Your task to perform on an android device: Add "macbook pro" to the cart on newegg.com Image 0: 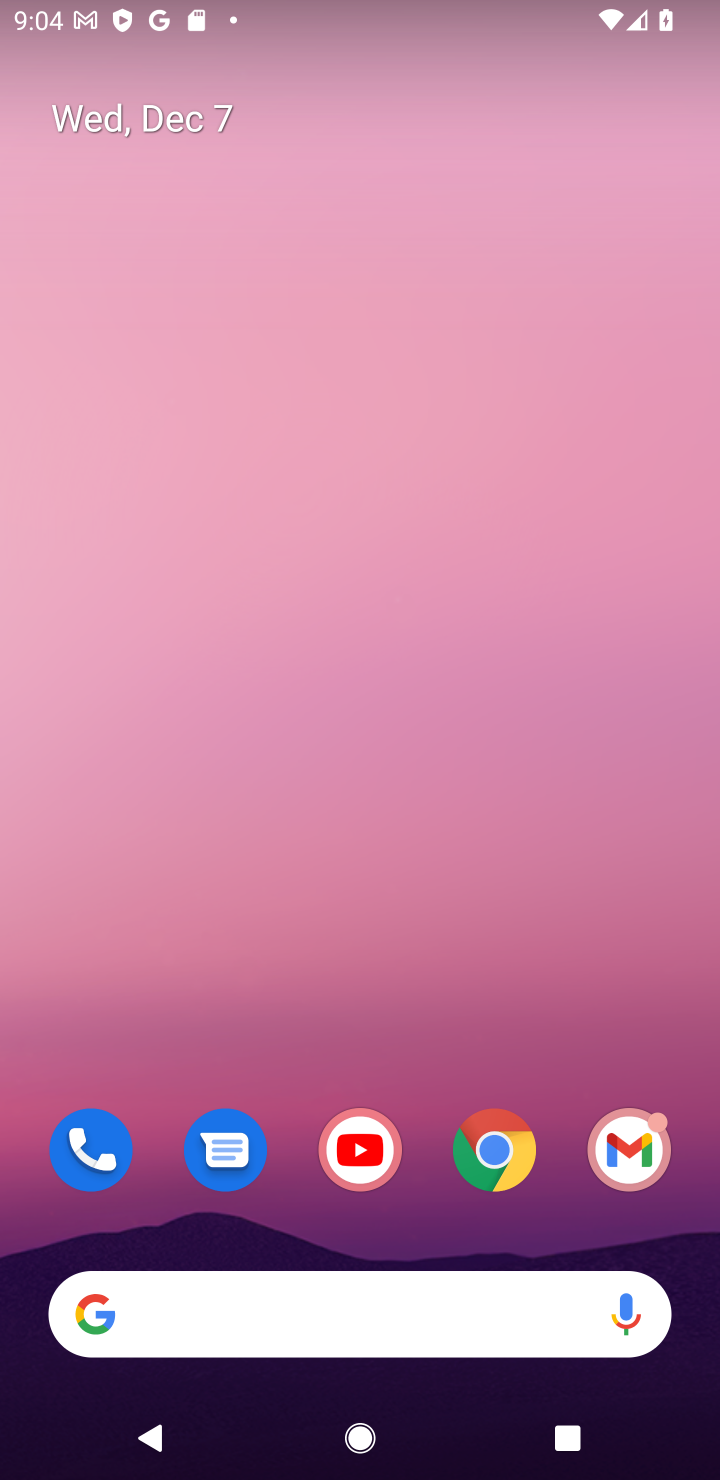
Step 0: click (509, 1151)
Your task to perform on an android device: Add "macbook pro" to the cart on newegg.com Image 1: 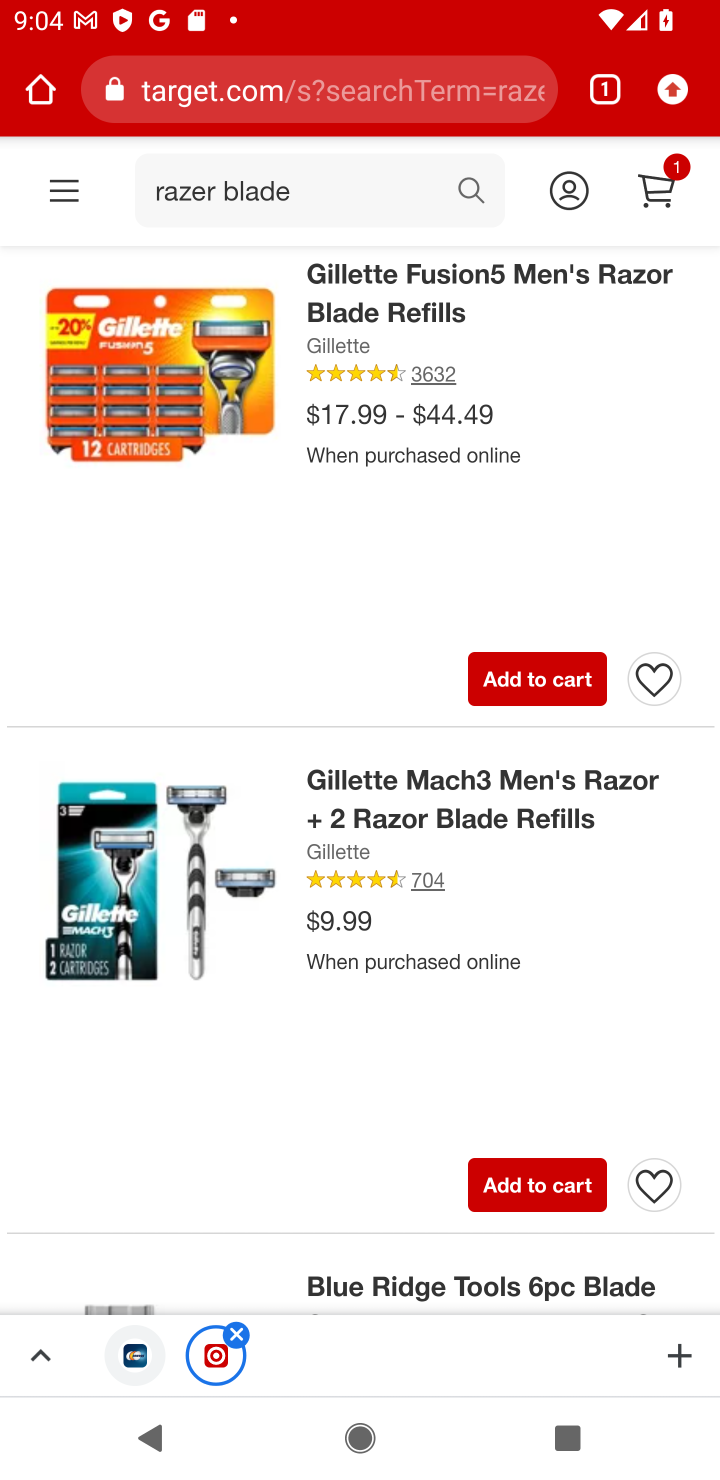
Step 1: click (237, 102)
Your task to perform on an android device: Add "macbook pro" to the cart on newegg.com Image 2: 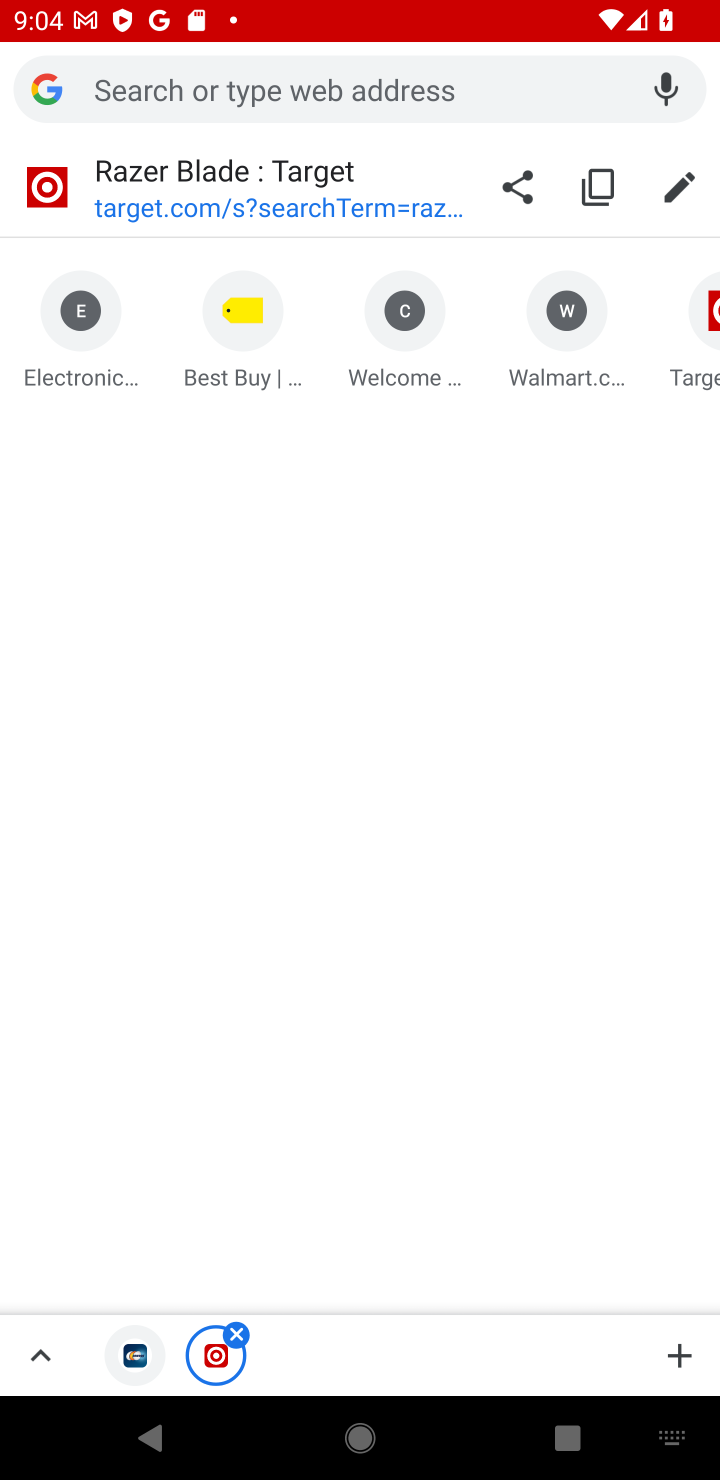
Step 2: type "newegg.com"
Your task to perform on an android device: Add "macbook pro" to the cart on newegg.com Image 3: 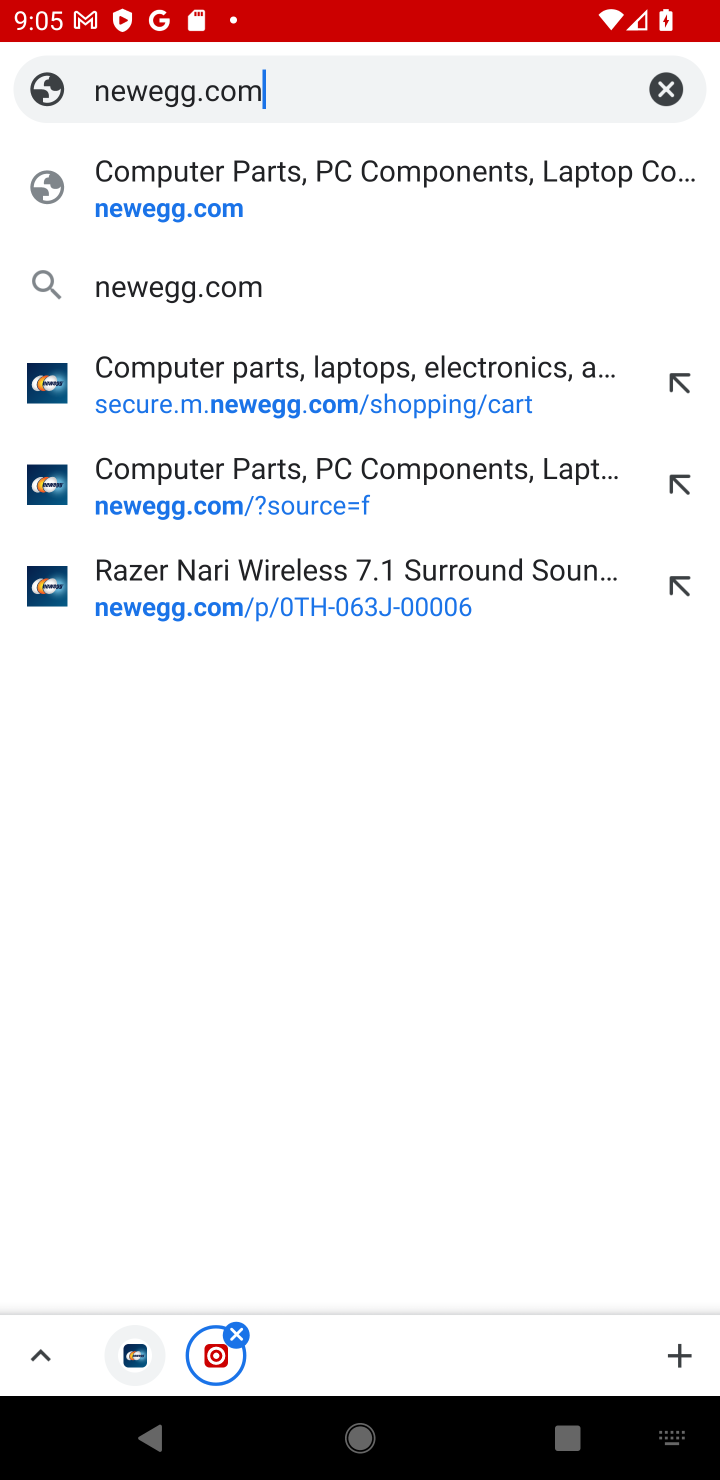
Step 3: click (243, 202)
Your task to perform on an android device: Add "macbook pro" to the cart on newegg.com Image 4: 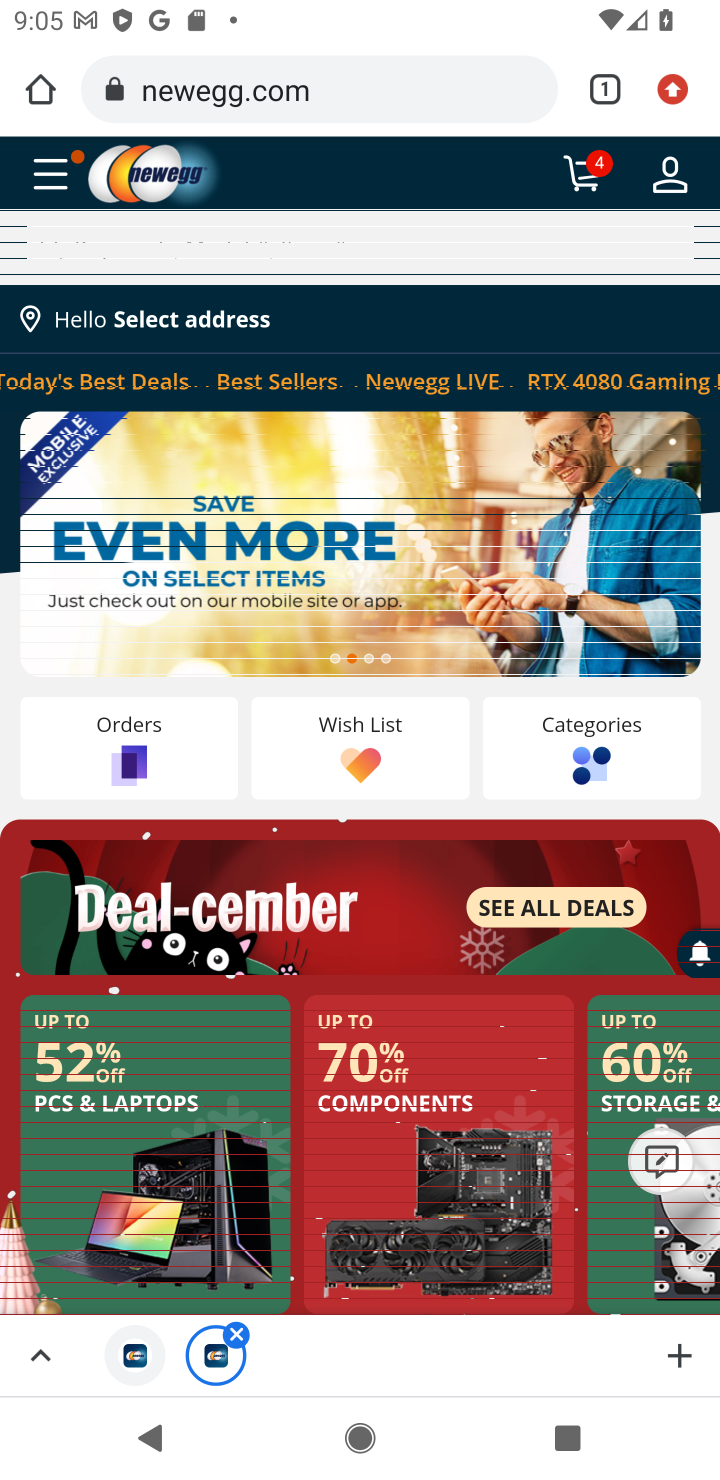
Step 4: click (387, 241)
Your task to perform on an android device: Add "macbook pro" to the cart on newegg.com Image 5: 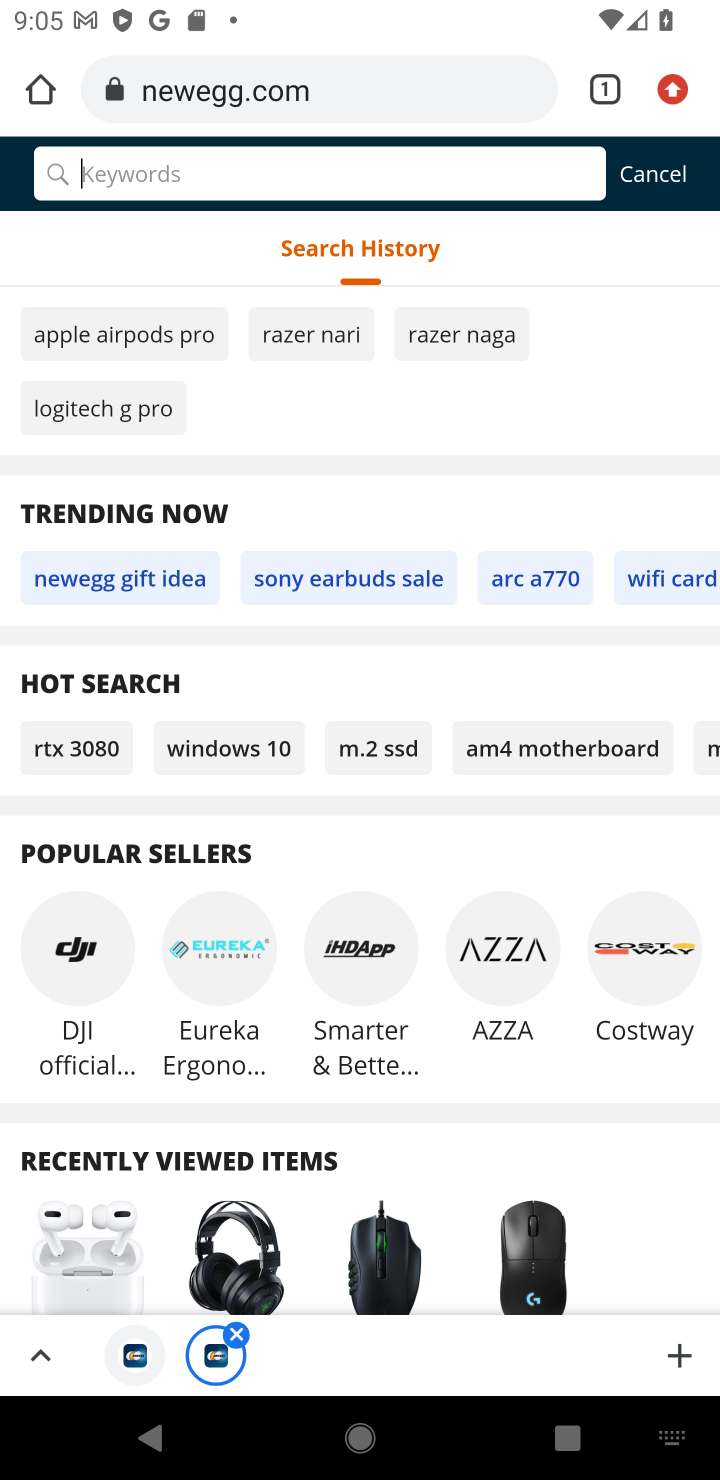
Step 5: type "macbook pro"
Your task to perform on an android device: Add "macbook pro" to the cart on newegg.com Image 6: 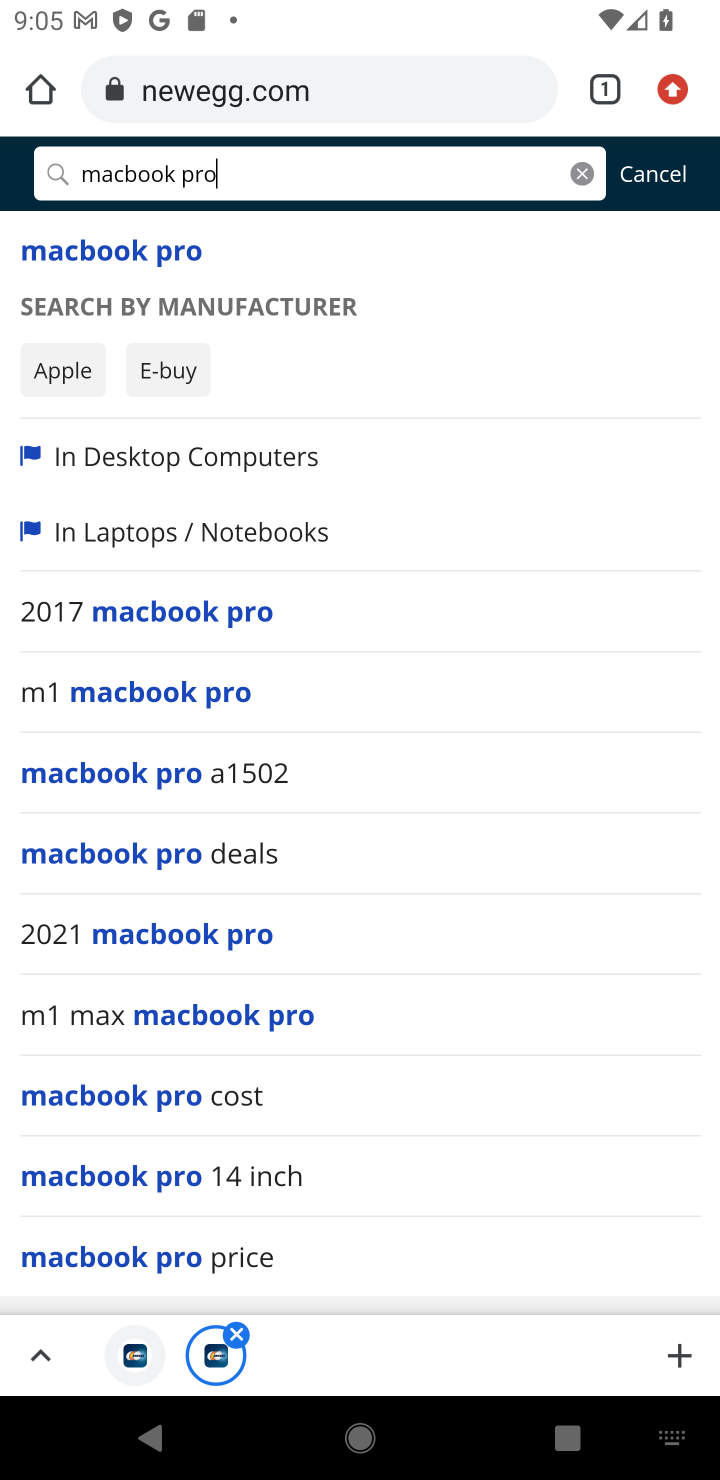
Step 6: press enter
Your task to perform on an android device: Add "macbook pro" to the cart on newegg.com Image 7: 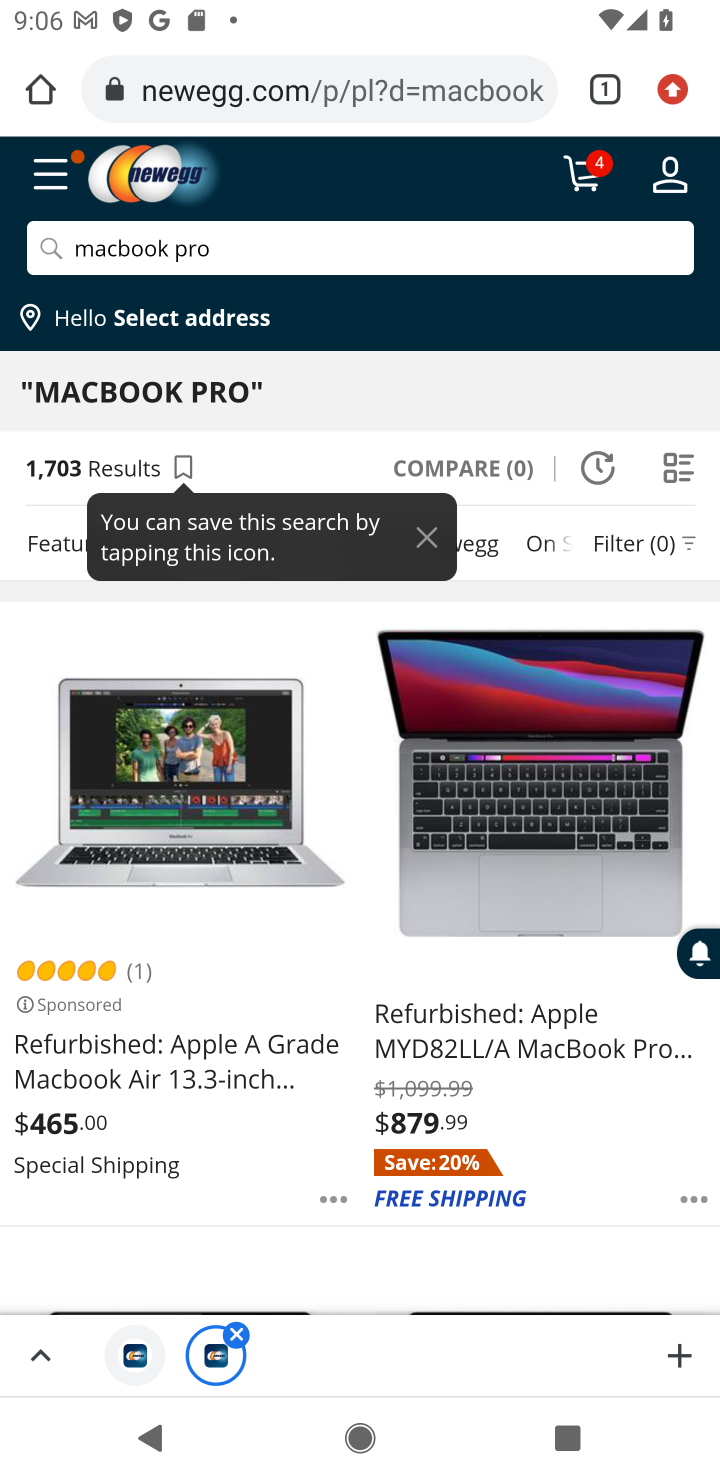
Step 7: click (137, 964)
Your task to perform on an android device: Add "macbook pro" to the cart on newegg.com Image 8: 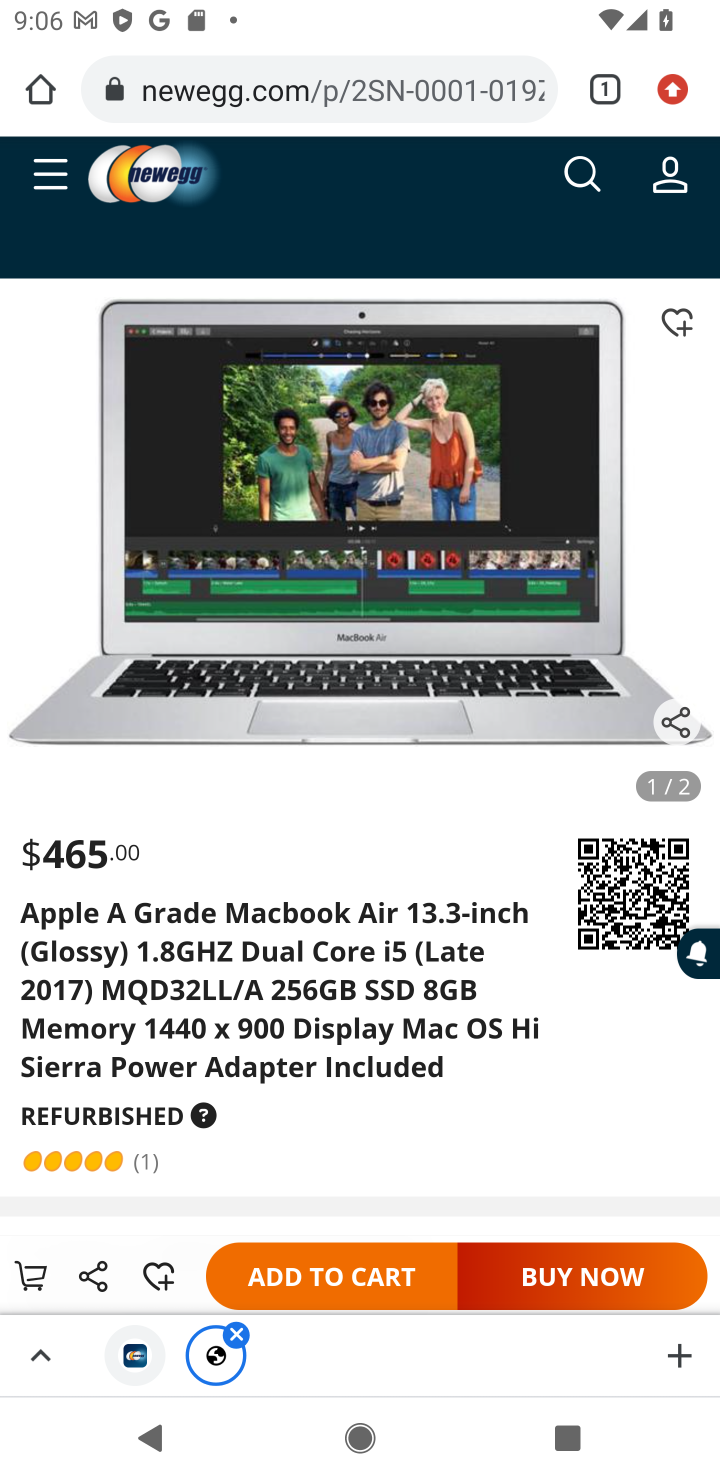
Step 8: click (305, 1287)
Your task to perform on an android device: Add "macbook pro" to the cart on newegg.com Image 9: 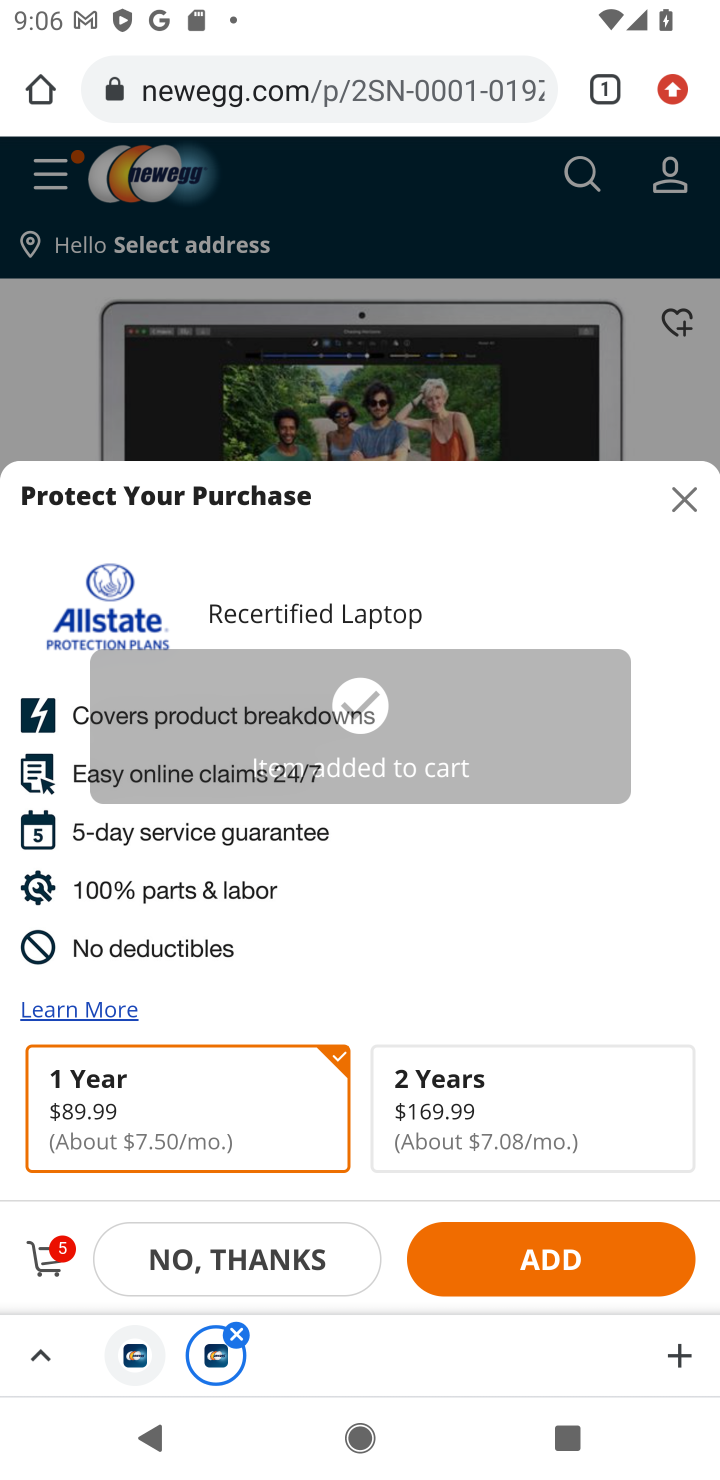
Step 9: click (513, 1275)
Your task to perform on an android device: Add "macbook pro" to the cart on newegg.com Image 10: 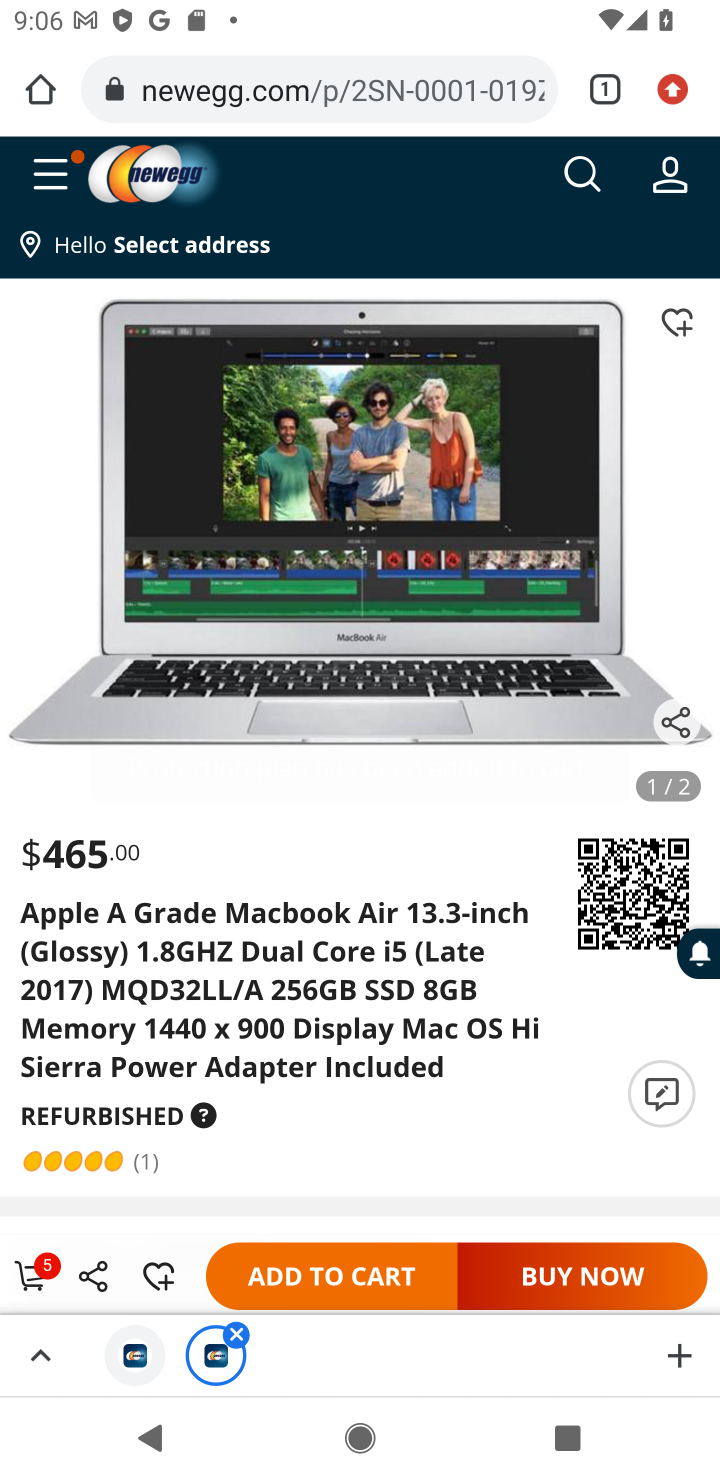
Step 10: task complete